Your task to perform on an android device: empty trash in the gmail app Image 0: 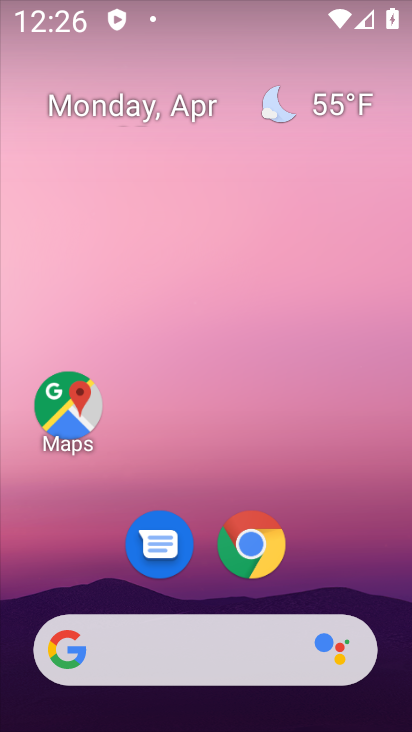
Step 0: drag from (354, 553) to (169, 52)
Your task to perform on an android device: empty trash in the gmail app Image 1: 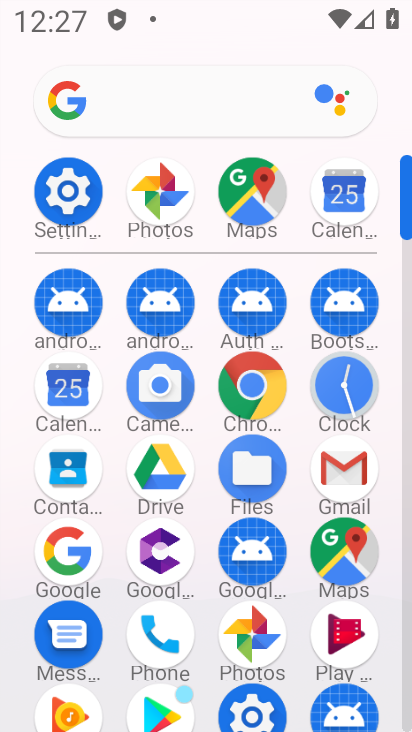
Step 1: click (354, 466)
Your task to perform on an android device: empty trash in the gmail app Image 2: 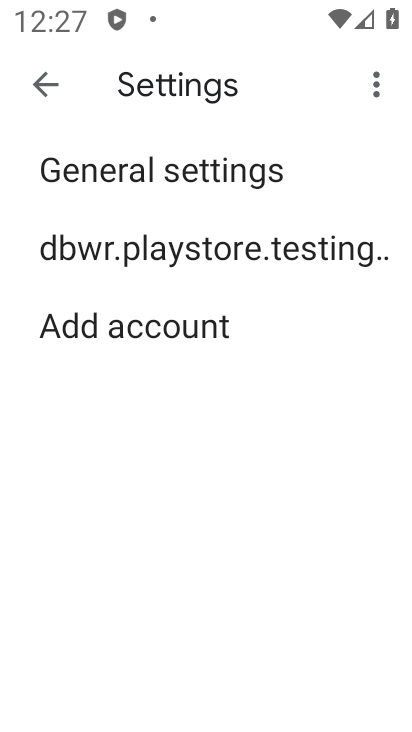
Step 2: press back button
Your task to perform on an android device: empty trash in the gmail app Image 3: 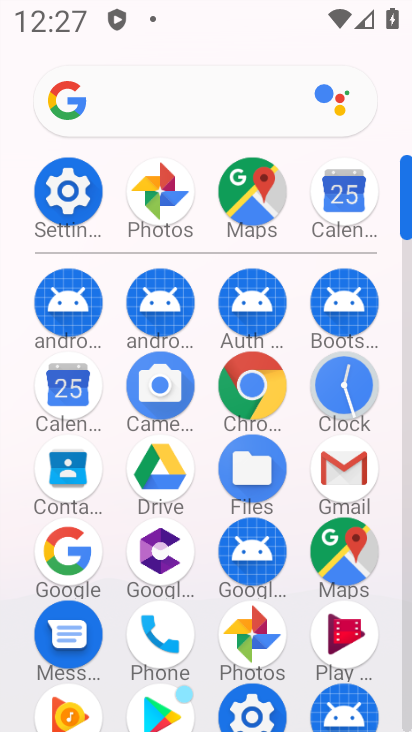
Step 3: click (353, 468)
Your task to perform on an android device: empty trash in the gmail app Image 4: 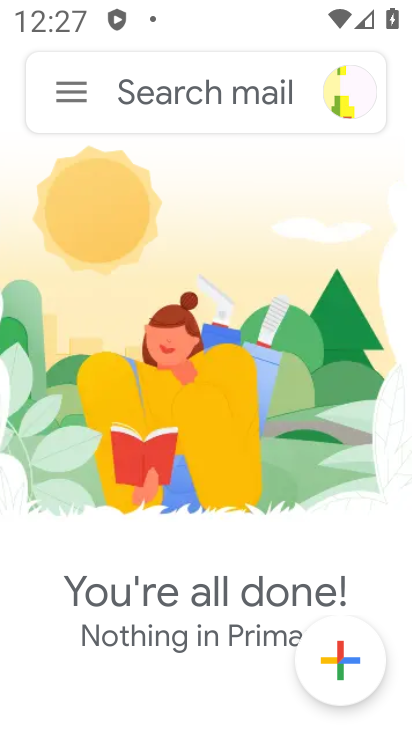
Step 4: click (70, 95)
Your task to perform on an android device: empty trash in the gmail app Image 5: 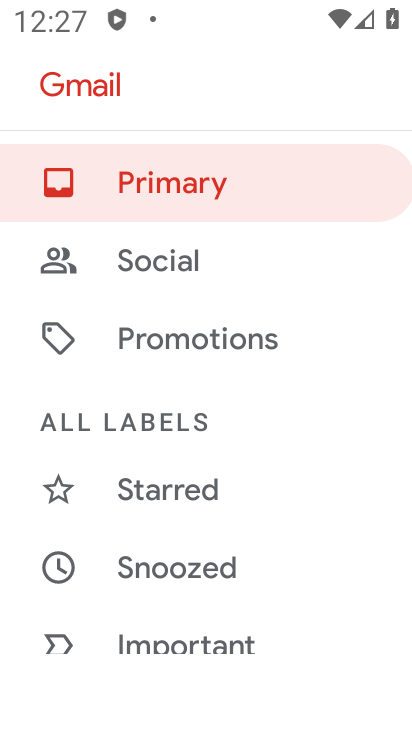
Step 5: drag from (230, 599) to (189, 137)
Your task to perform on an android device: empty trash in the gmail app Image 6: 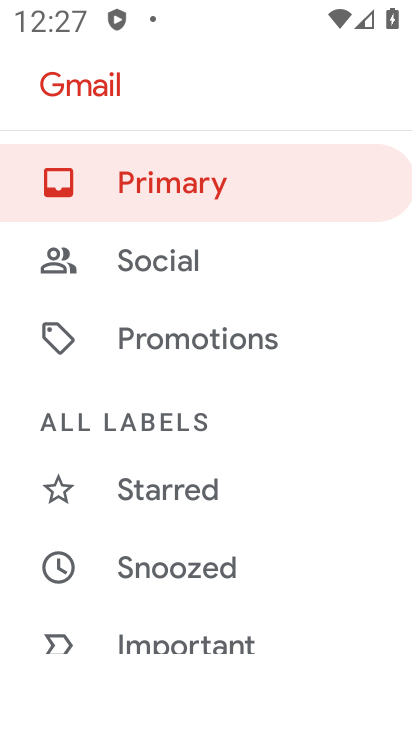
Step 6: drag from (305, 605) to (271, 99)
Your task to perform on an android device: empty trash in the gmail app Image 7: 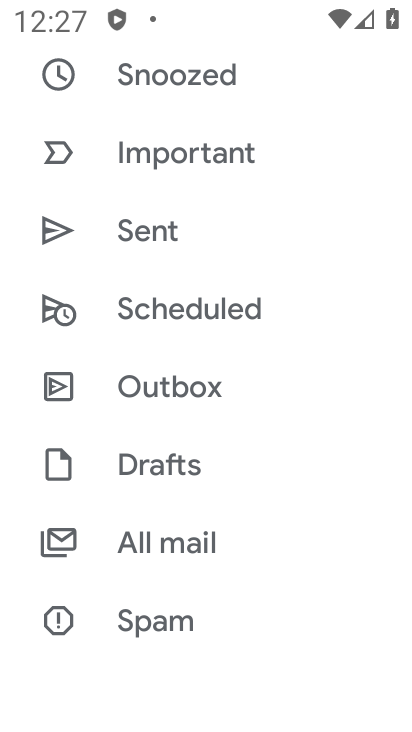
Step 7: drag from (220, 525) to (217, 188)
Your task to perform on an android device: empty trash in the gmail app Image 8: 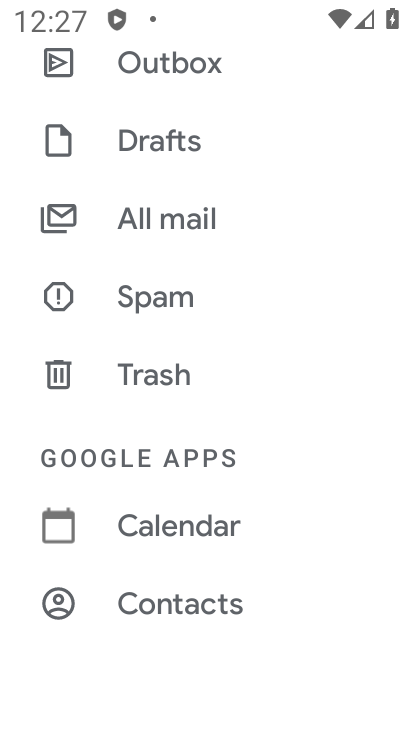
Step 8: click (154, 375)
Your task to perform on an android device: empty trash in the gmail app Image 9: 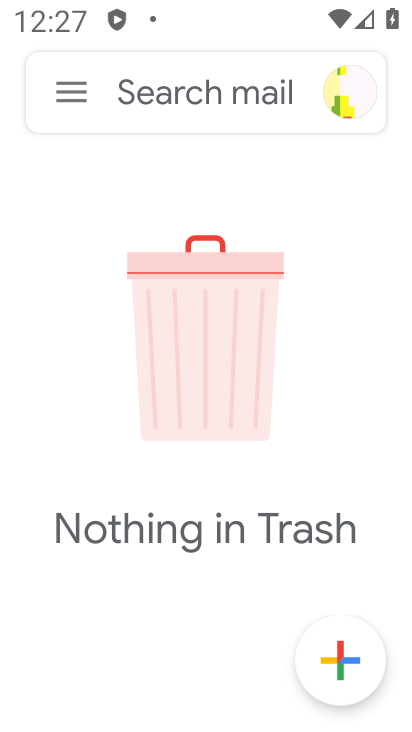
Step 9: task complete